Your task to perform on an android device: Go to Wikipedia Image 0: 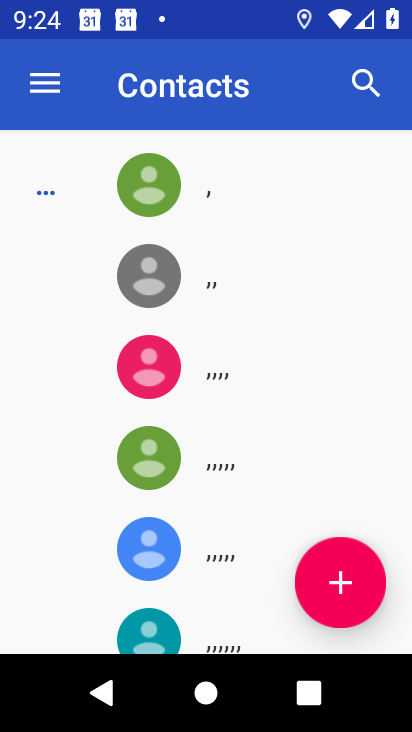
Step 0: press home button
Your task to perform on an android device: Go to Wikipedia Image 1: 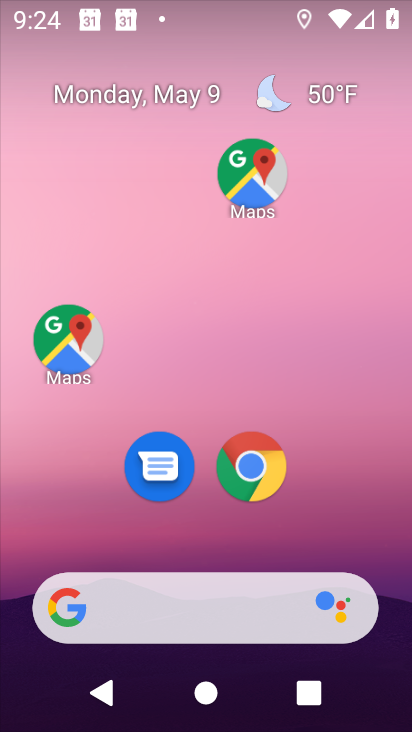
Step 1: click (255, 473)
Your task to perform on an android device: Go to Wikipedia Image 2: 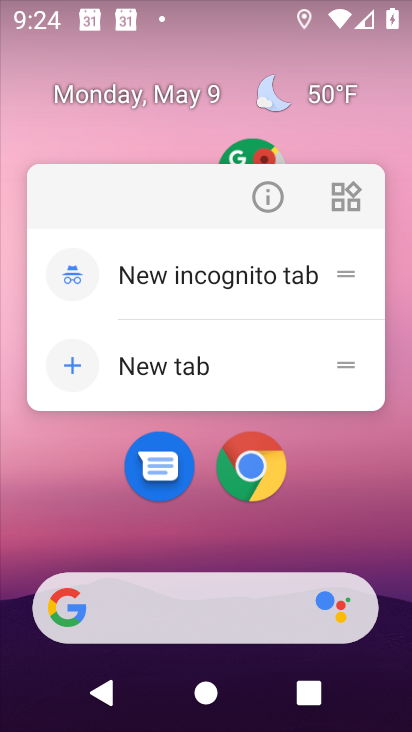
Step 2: click (256, 473)
Your task to perform on an android device: Go to Wikipedia Image 3: 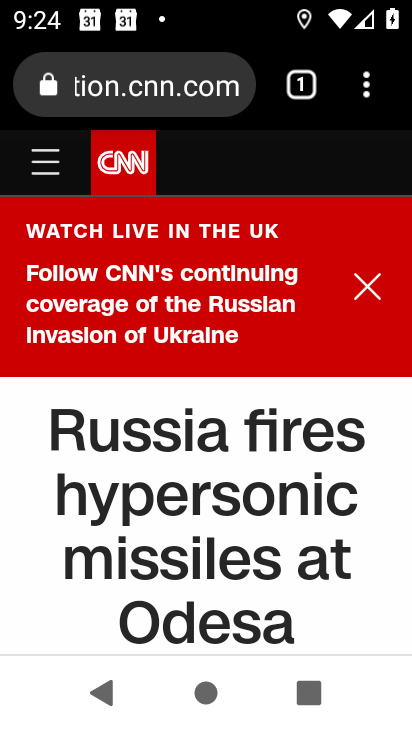
Step 3: click (163, 83)
Your task to perform on an android device: Go to Wikipedia Image 4: 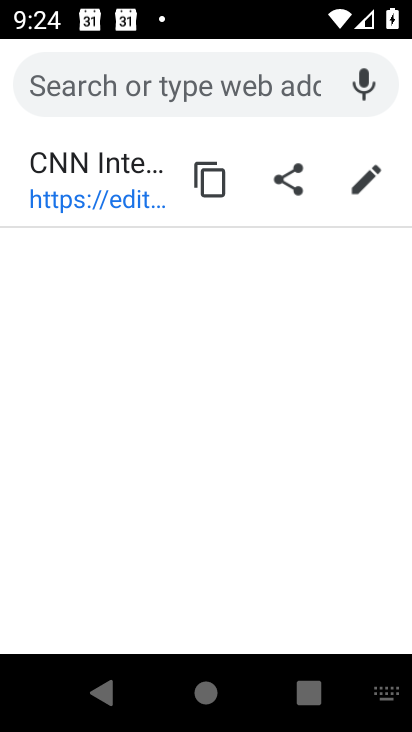
Step 4: type "wikipedia"
Your task to perform on an android device: Go to Wikipedia Image 5: 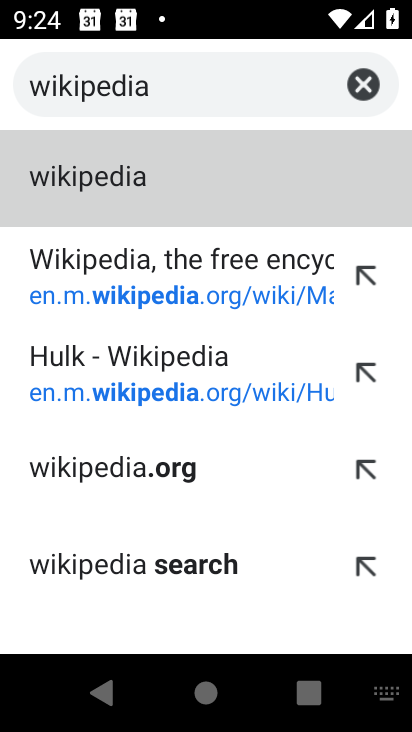
Step 5: click (93, 182)
Your task to perform on an android device: Go to Wikipedia Image 6: 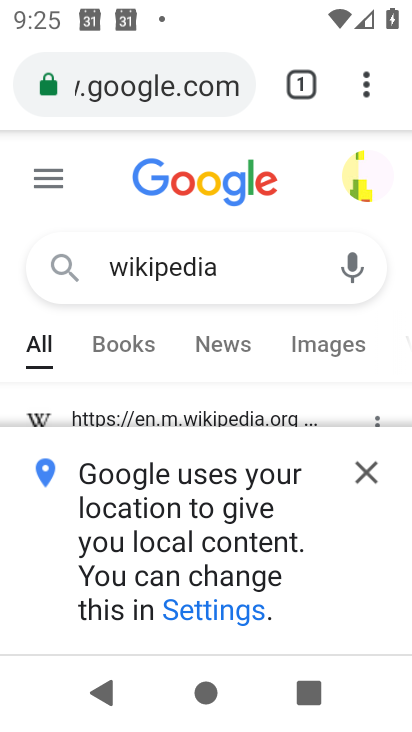
Step 6: click (357, 472)
Your task to perform on an android device: Go to Wikipedia Image 7: 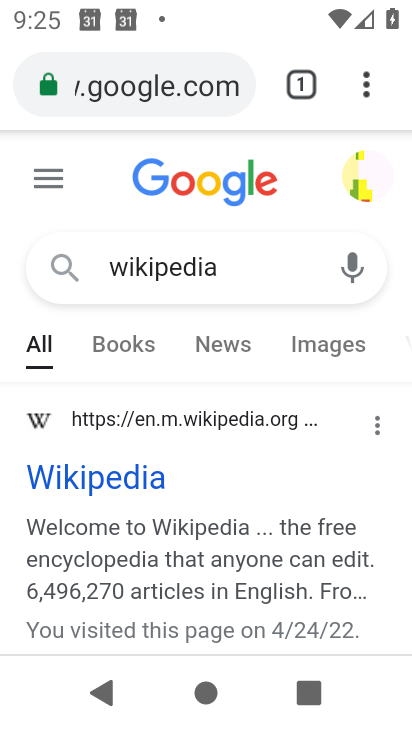
Step 7: click (100, 487)
Your task to perform on an android device: Go to Wikipedia Image 8: 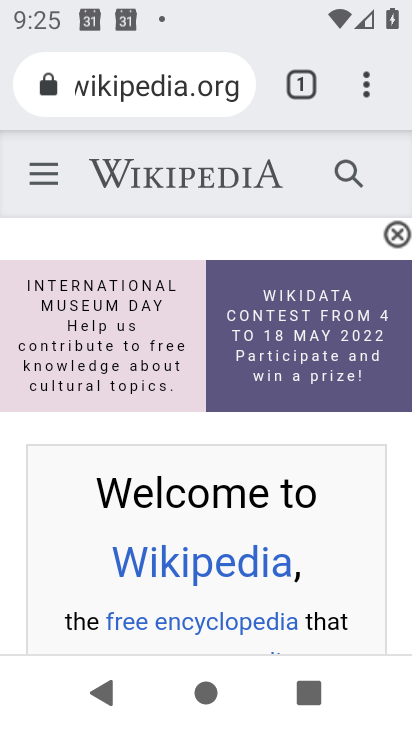
Step 8: task complete